Your task to perform on an android device: Check the weather Image 0: 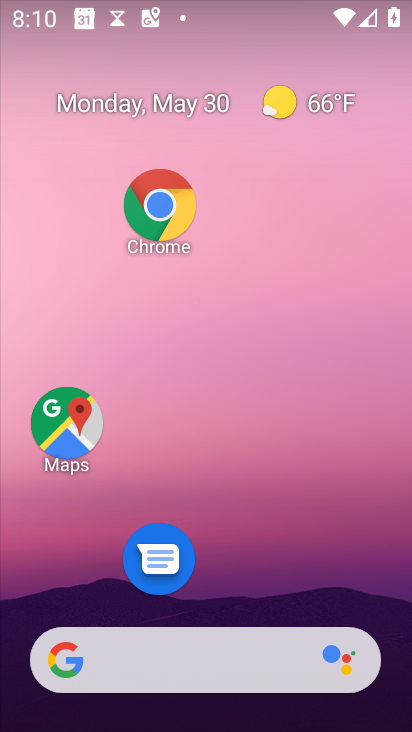
Step 0: drag from (387, 435) to (340, 499)
Your task to perform on an android device: Check the weather Image 1: 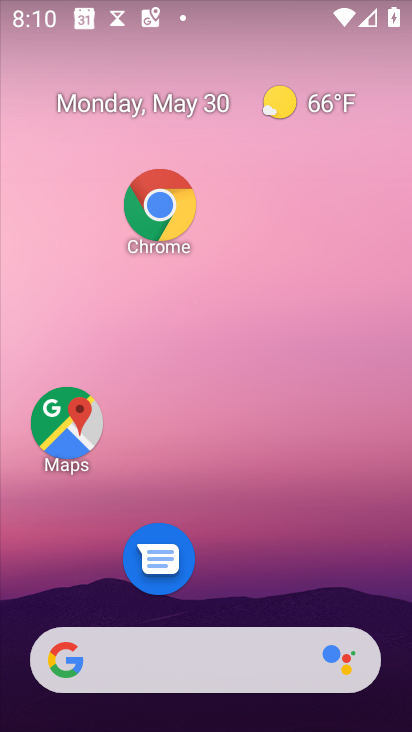
Step 1: drag from (16, 248) to (327, 482)
Your task to perform on an android device: Check the weather Image 2: 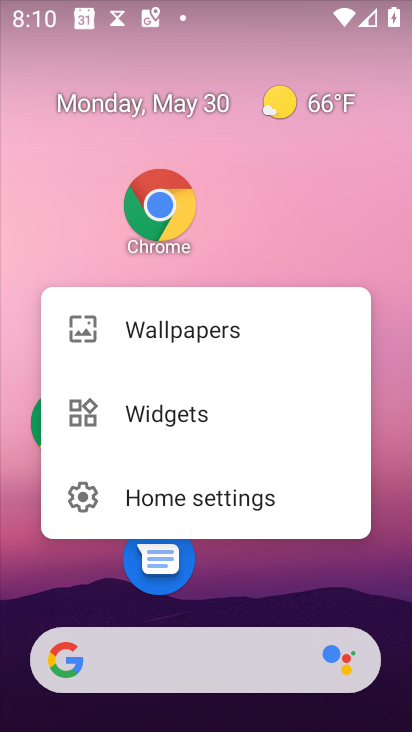
Step 2: drag from (11, 237) to (284, 527)
Your task to perform on an android device: Check the weather Image 3: 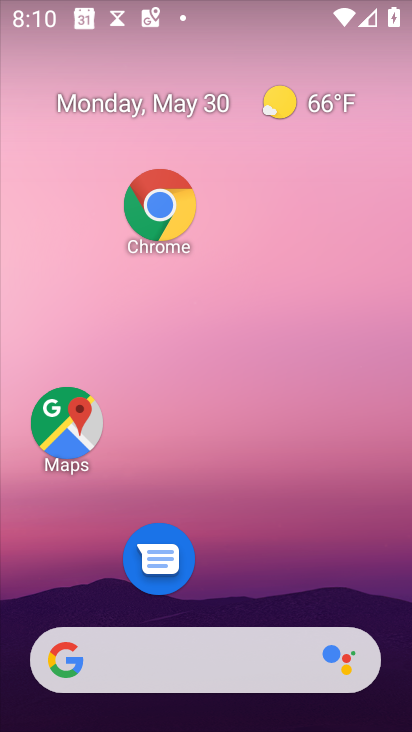
Step 3: click (282, 238)
Your task to perform on an android device: Check the weather Image 4: 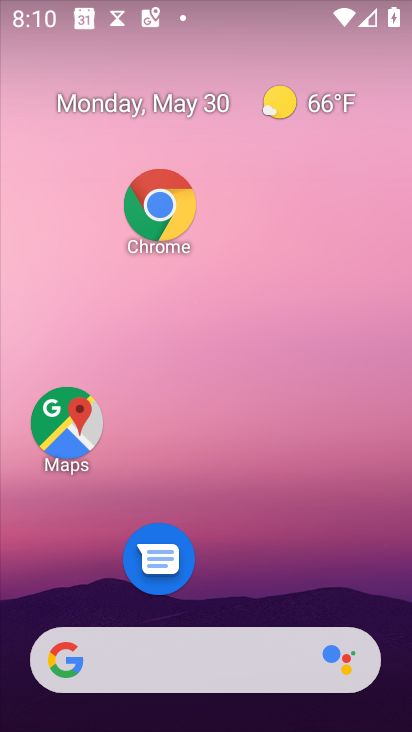
Step 4: click (263, 431)
Your task to perform on an android device: Check the weather Image 5: 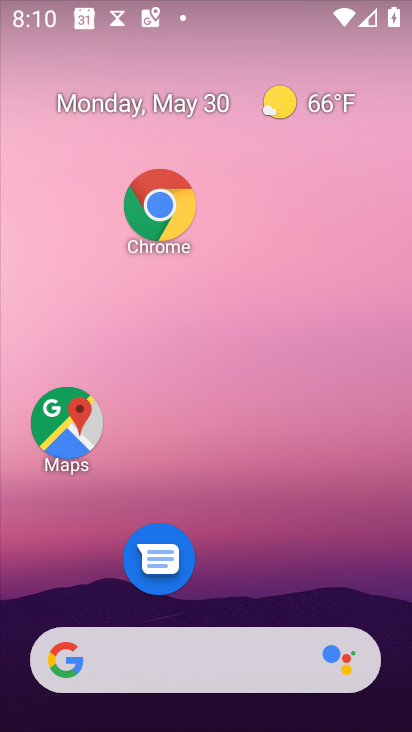
Step 5: drag from (8, 236) to (315, 434)
Your task to perform on an android device: Check the weather Image 6: 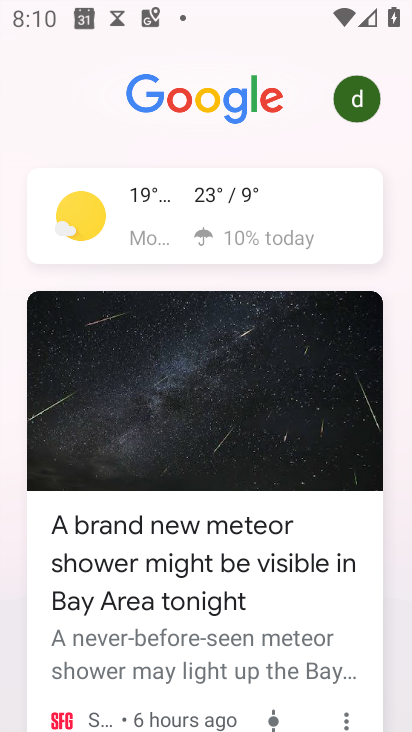
Step 6: drag from (33, 240) to (323, 444)
Your task to perform on an android device: Check the weather Image 7: 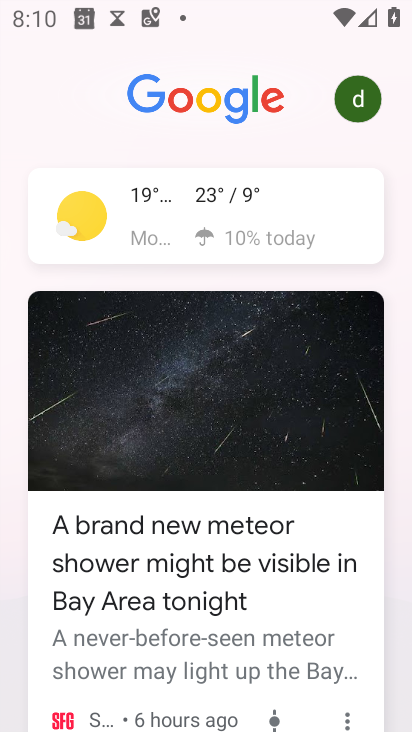
Step 7: click (184, 216)
Your task to perform on an android device: Check the weather Image 8: 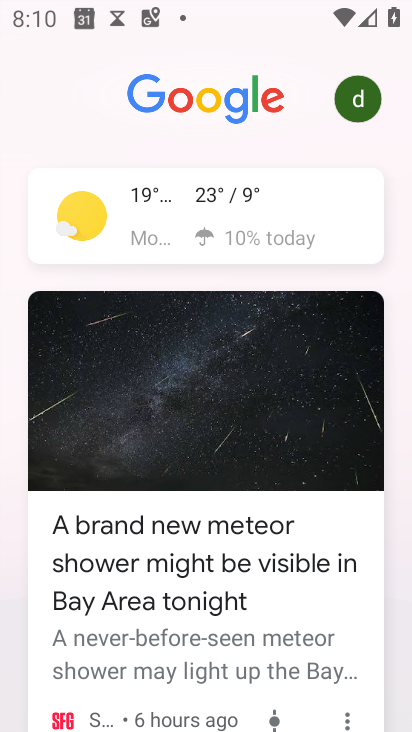
Step 8: click (184, 216)
Your task to perform on an android device: Check the weather Image 9: 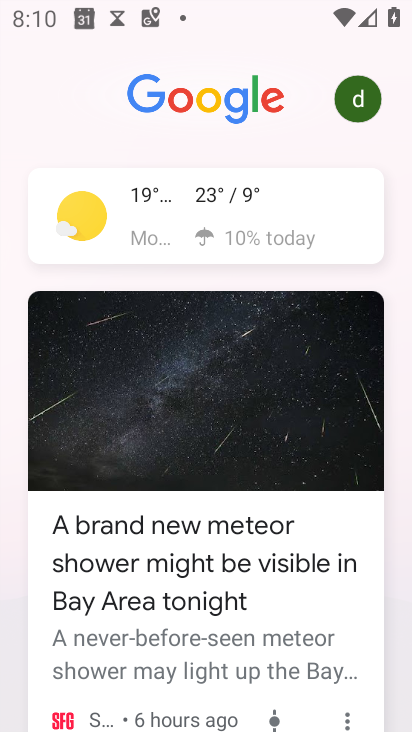
Step 9: click (189, 228)
Your task to perform on an android device: Check the weather Image 10: 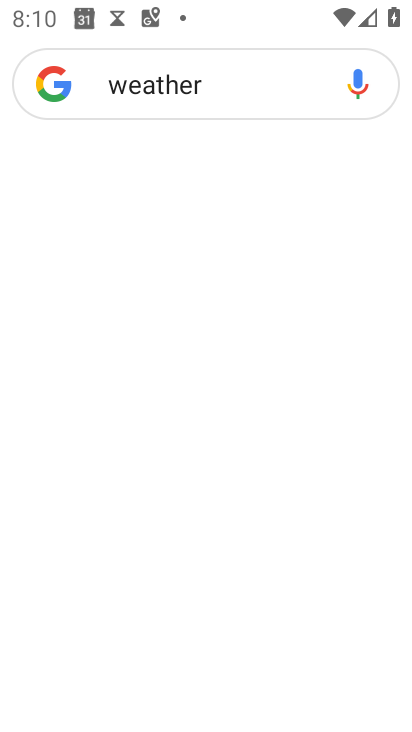
Step 10: click (189, 228)
Your task to perform on an android device: Check the weather Image 11: 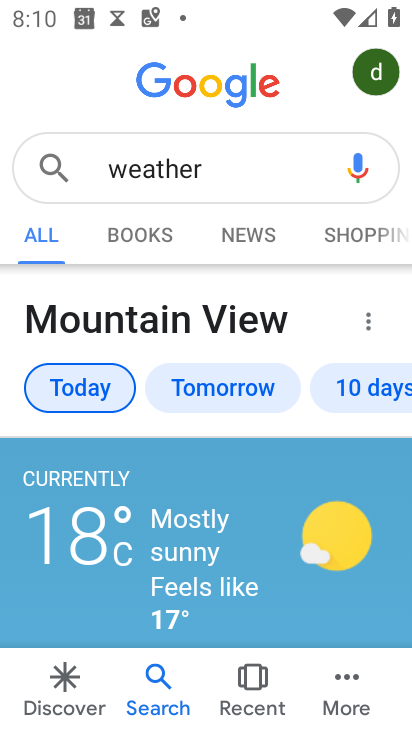
Step 11: click (203, 158)
Your task to perform on an android device: Check the weather Image 12: 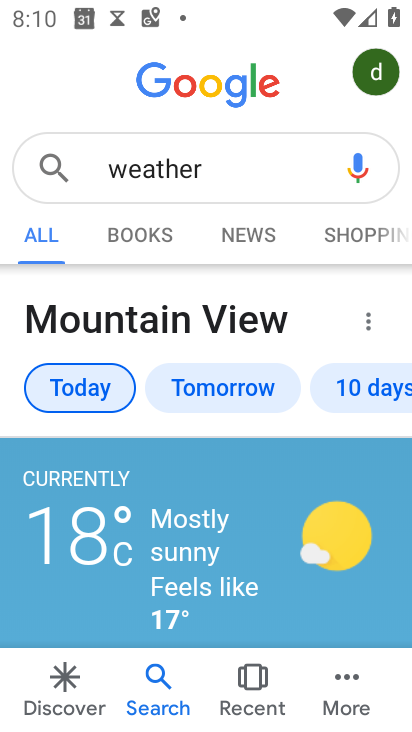
Step 12: click (203, 158)
Your task to perform on an android device: Check the weather Image 13: 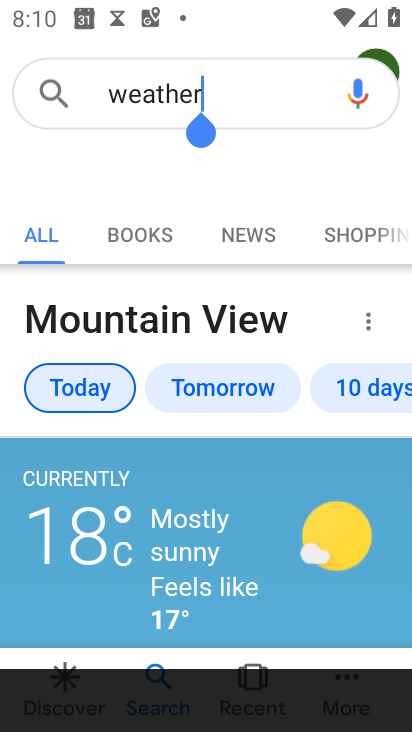
Step 13: click (213, 165)
Your task to perform on an android device: Check the weather Image 14: 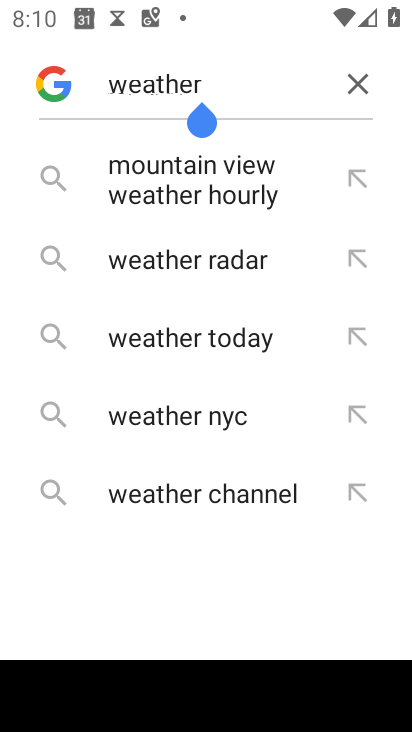
Step 14: click (201, 186)
Your task to perform on an android device: Check the weather Image 15: 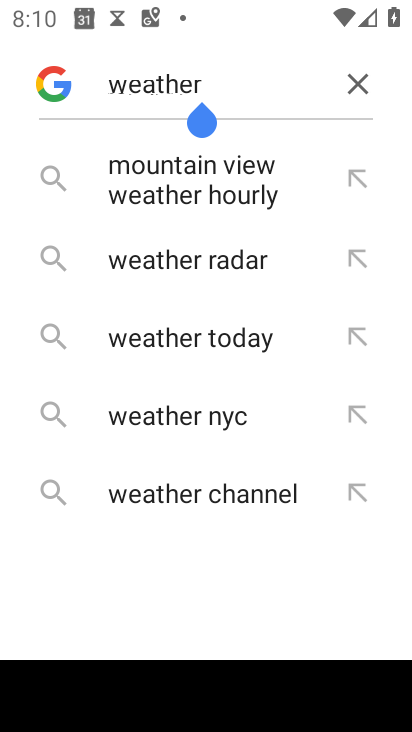
Step 15: click (201, 186)
Your task to perform on an android device: Check the weather Image 16: 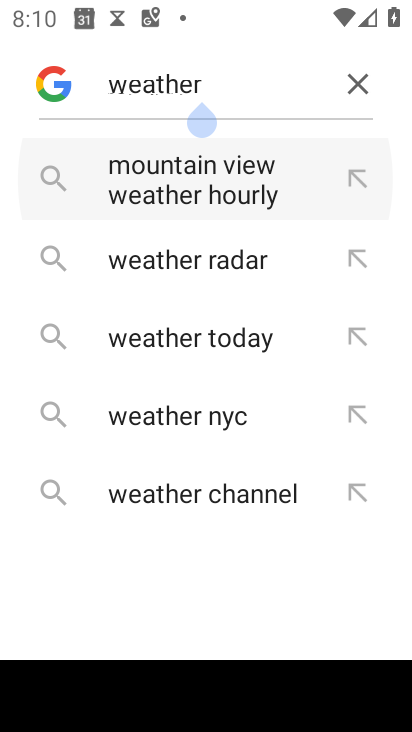
Step 16: click (201, 186)
Your task to perform on an android device: Check the weather Image 17: 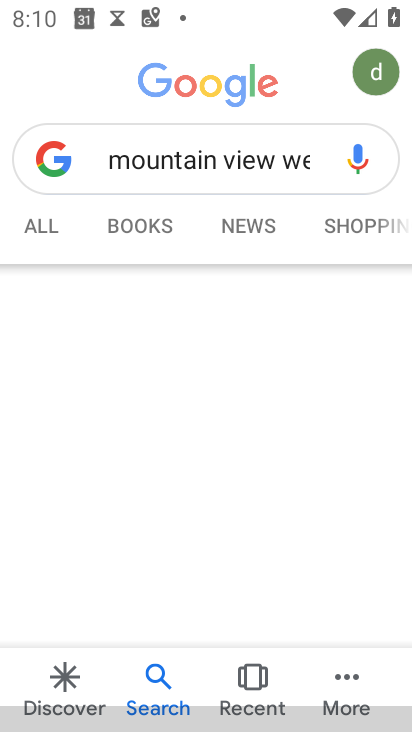
Step 17: click (206, 202)
Your task to perform on an android device: Check the weather Image 18: 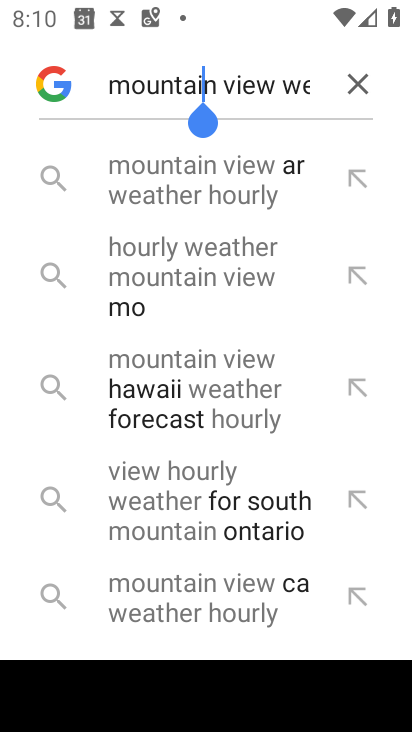
Step 18: task complete